Your task to perform on an android device: What is the capital of Norway? Image 0: 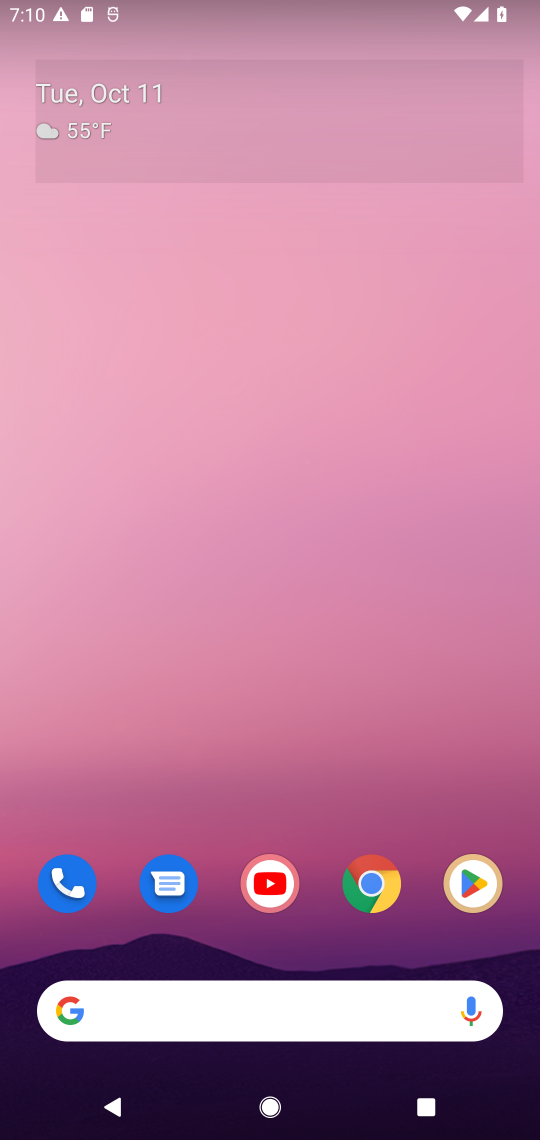
Step 0: drag from (325, 928) to (306, 115)
Your task to perform on an android device: What is the capital of Norway? Image 1: 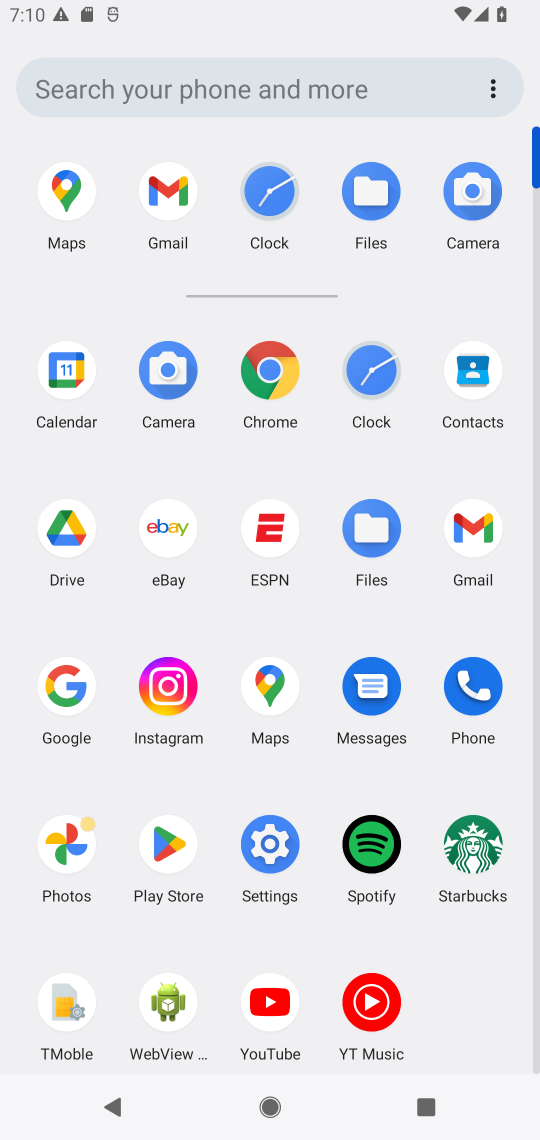
Step 1: click (273, 379)
Your task to perform on an android device: What is the capital of Norway? Image 2: 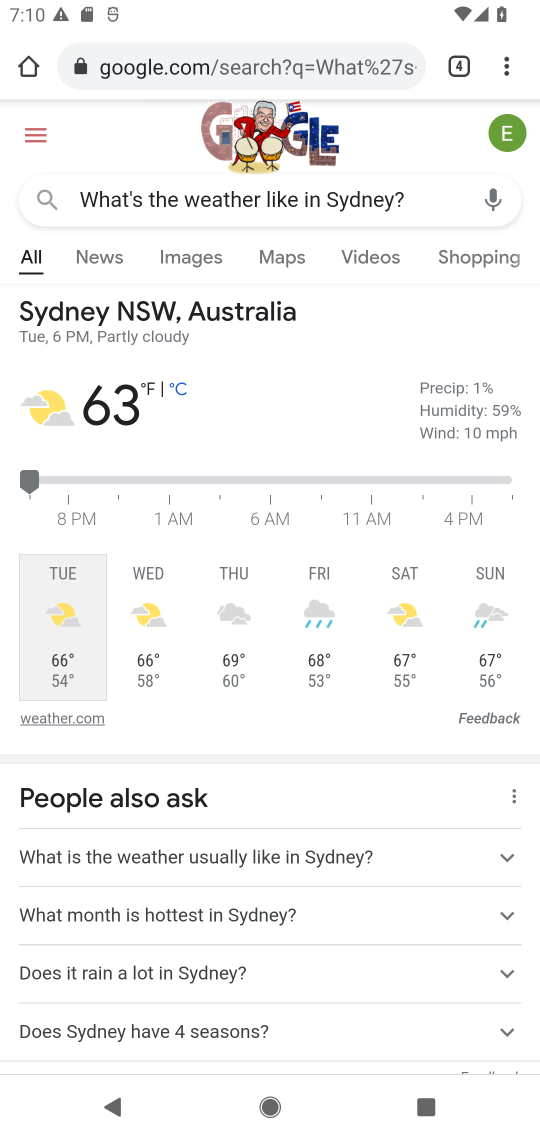
Step 2: click (275, 72)
Your task to perform on an android device: What is the capital of Norway? Image 3: 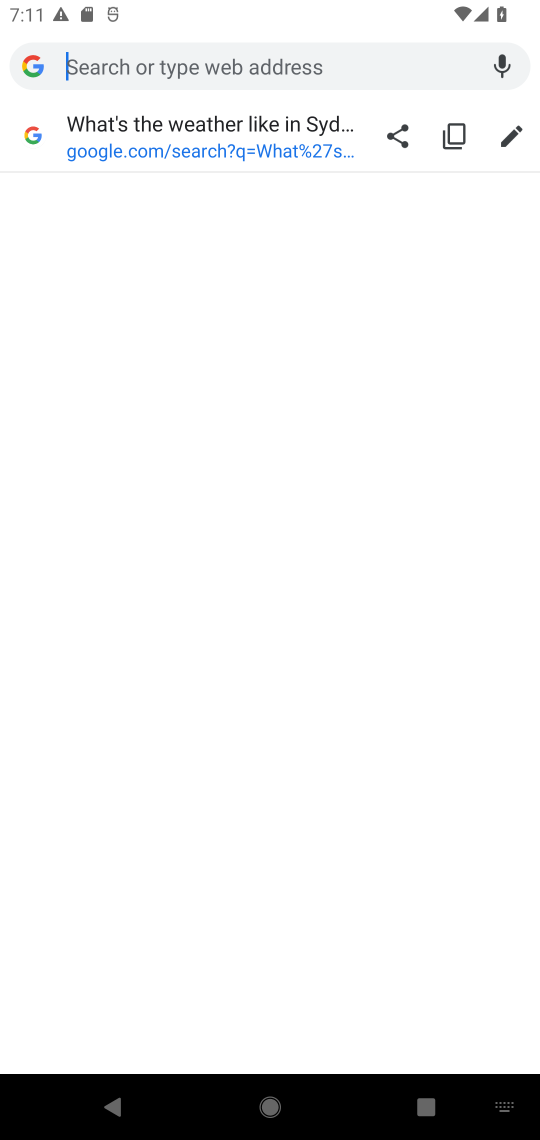
Step 3: type "What is the capital of Norway?"
Your task to perform on an android device: What is the capital of Norway? Image 4: 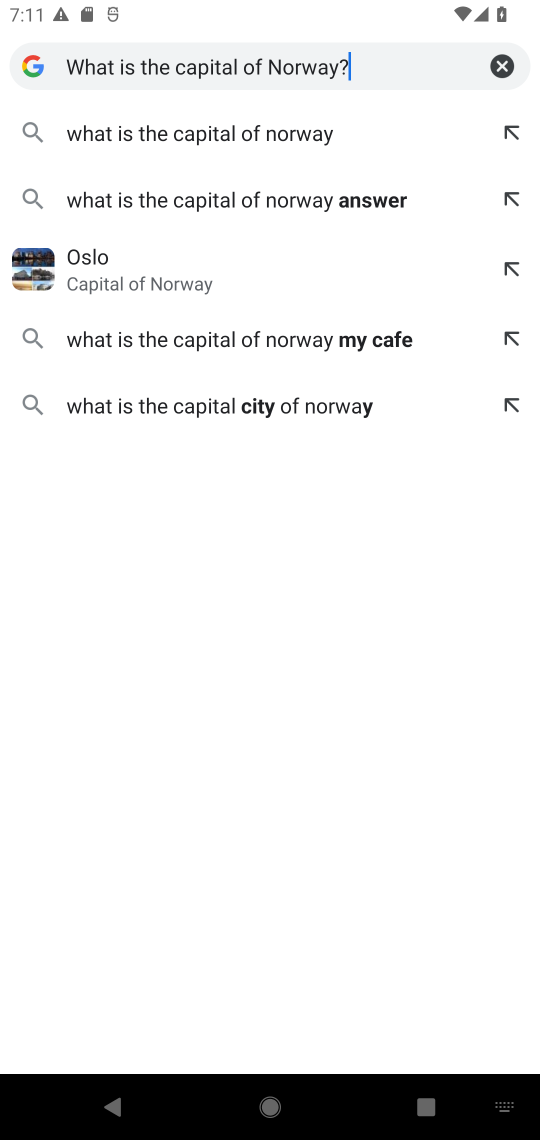
Step 4: press enter
Your task to perform on an android device: What is the capital of Norway? Image 5: 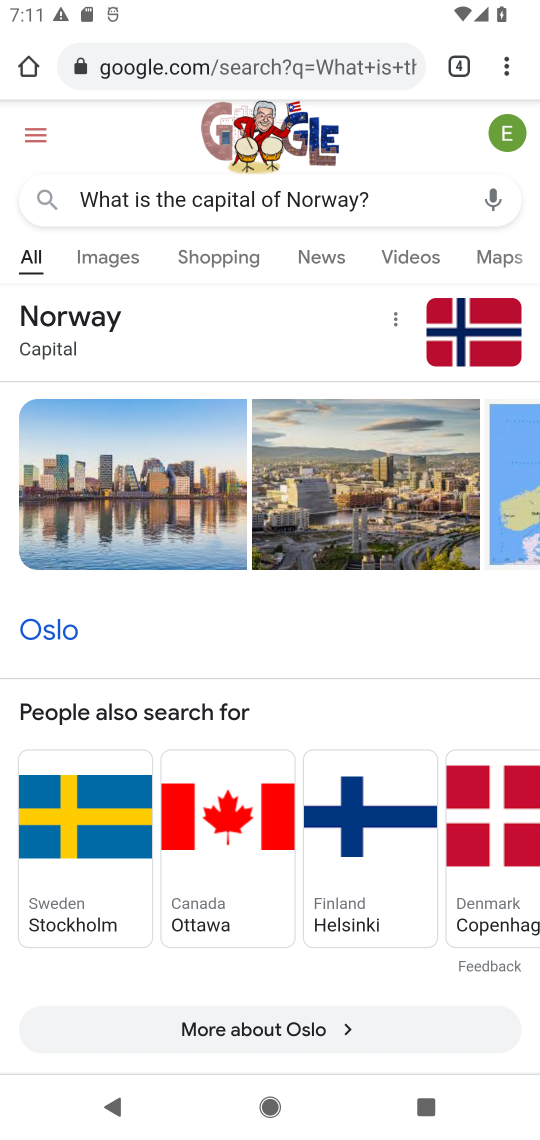
Step 5: task complete